Your task to perform on an android device: Go to Yahoo.com Image 0: 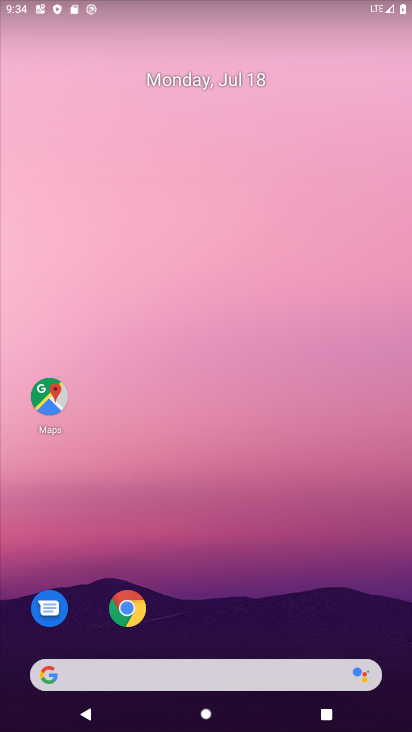
Step 0: click (137, 604)
Your task to perform on an android device: Go to Yahoo.com Image 1: 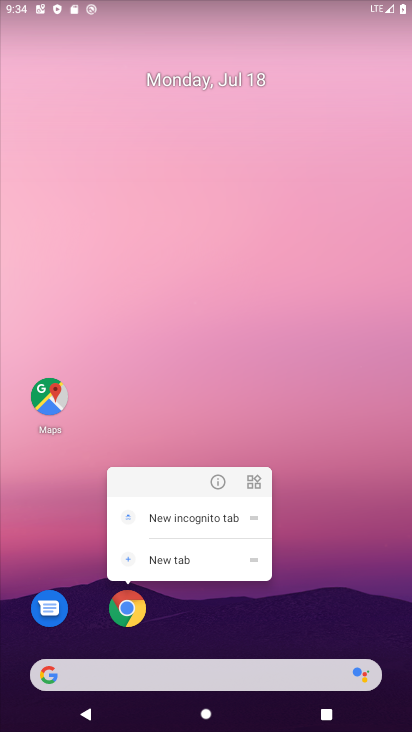
Step 1: click (134, 603)
Your task to perform on an android device: Go to Yahoo.com Image 2: 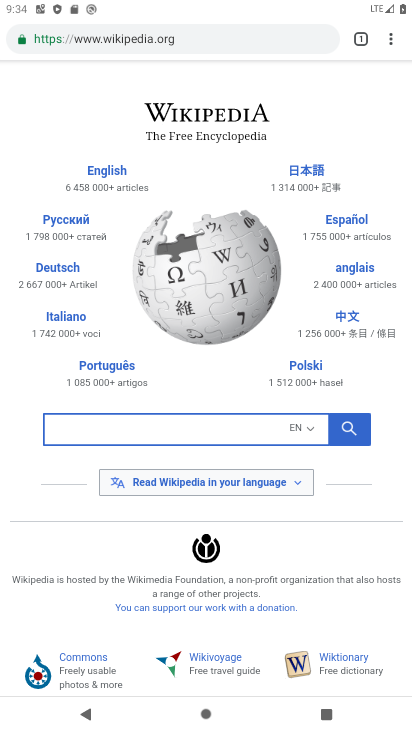
Step 2: click (152, 41)
Your task to perform on an android device: Go to Yahoo.com Image 3: 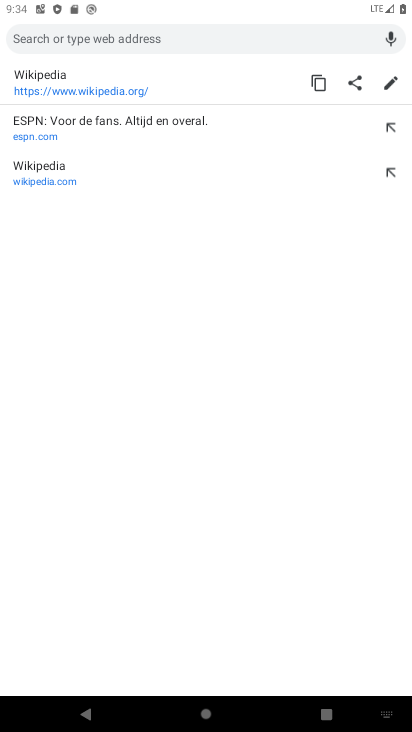
Step 3: type "yahoo.com"
Your task to perform on an android device: Go to Yahoo.com Image 4: 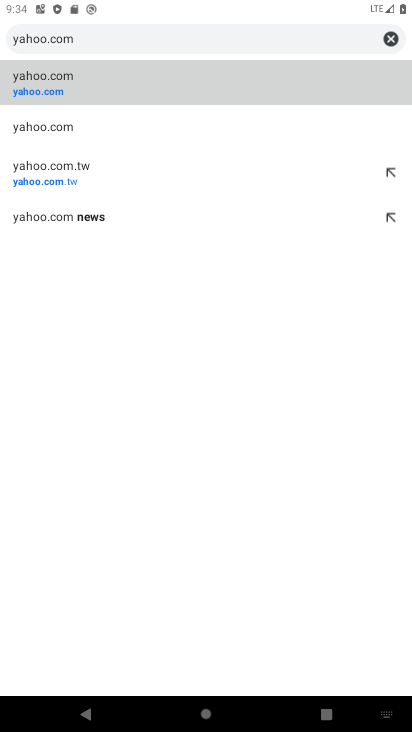
Step 4: click (71, 82)
Your task to perform on an android device: Go to Yahoo.com Image 5: 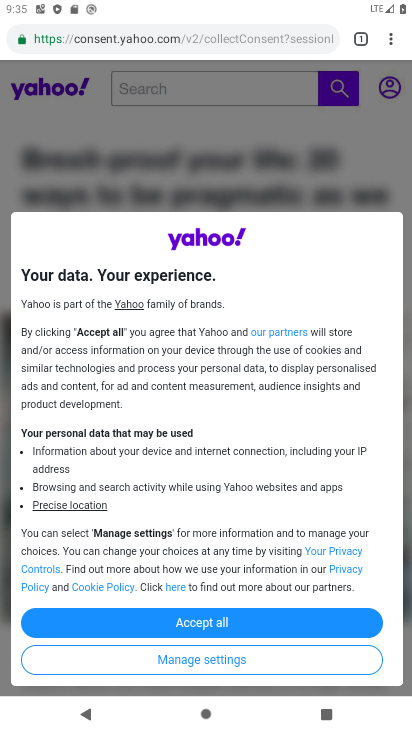
Step 5: task complete